Your task to perform on an android device: check out phone information Image 0: 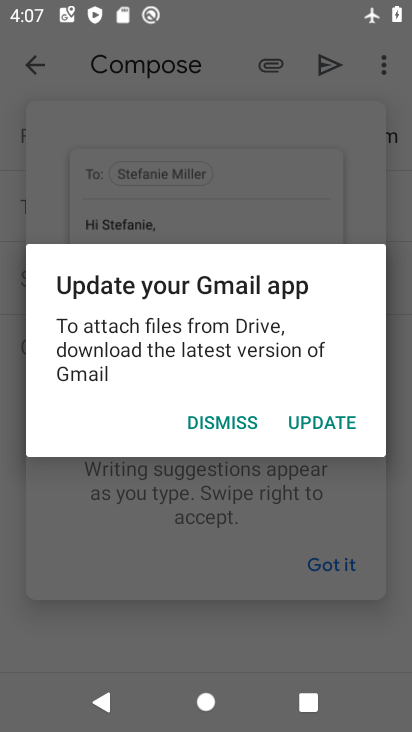
Step 0: press home button
Your task to perform on an android device: check out phone information Image 1: 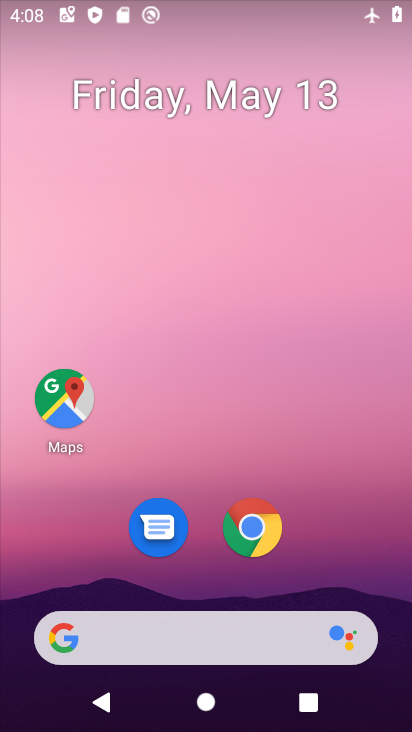
Step 1: drag from (374, 539) to (293, 3)
Your task to perform on an android device: check out phone information Image 2: 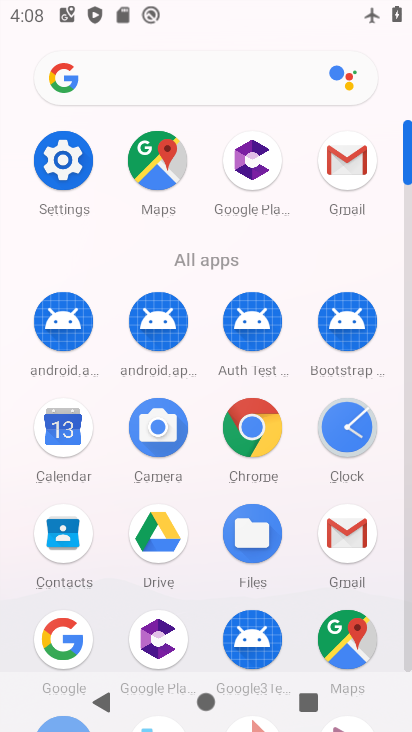
Step 2: click (61, 181)
Your task to perform on an android device: check out phone information Image 3: 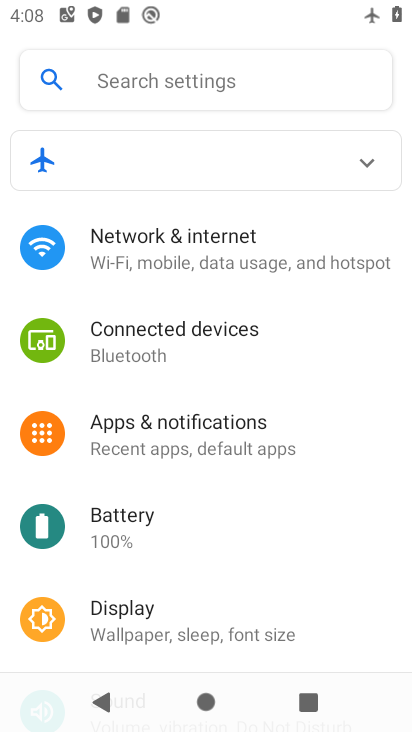
Step 3: drag from (208, 445) to (277, 16)
Your task to perform on an android device: check out phone information Image 4: 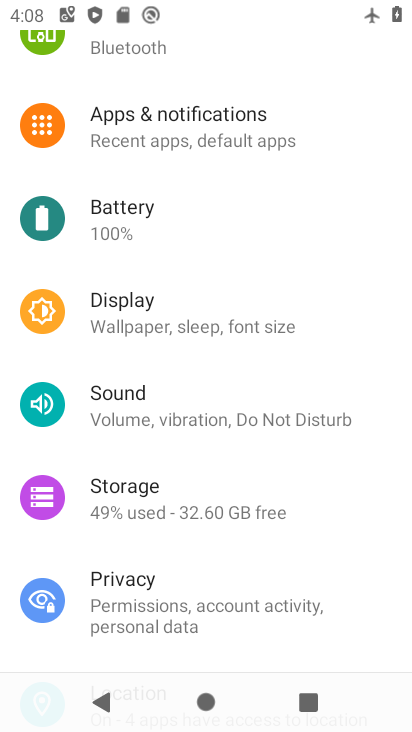
Step 4: drag from (233, 583) to (310, 119)
Your task to perform on an android device: check out phone information Image 5: 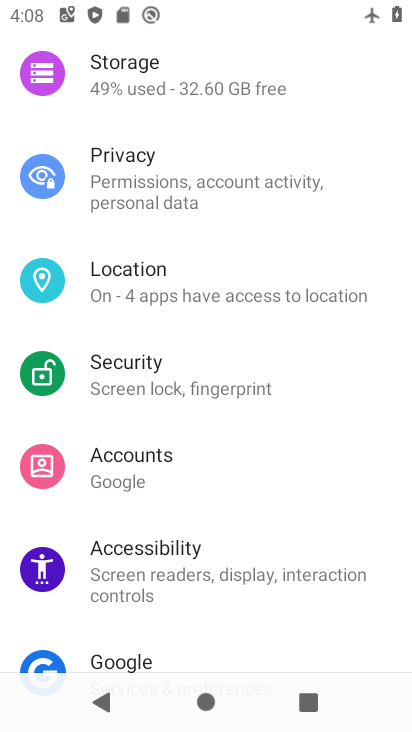
Step 5: drag from (274, 485) to (279, 169)
Your task to perform on an android device: check out phone information Image 6: 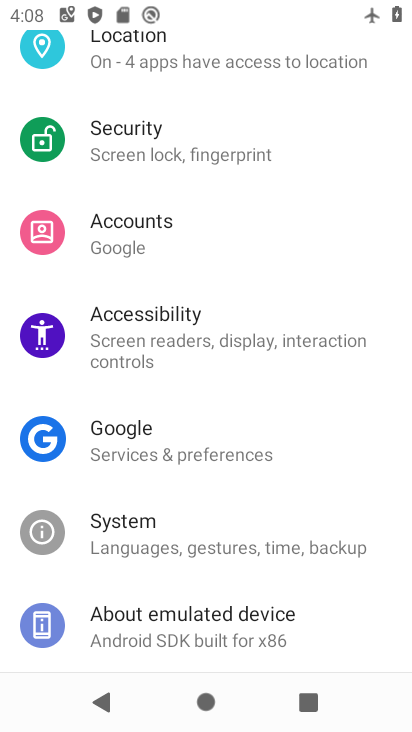
Step 6: click (238, 616)
Your task to perform on an android device: check out phone information Image 7: 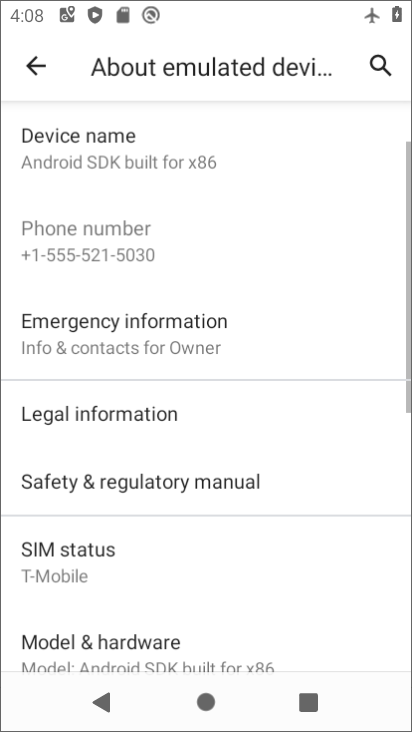
Step 7: task complete